Your task to perform on an android device: change the clock style Image 0: 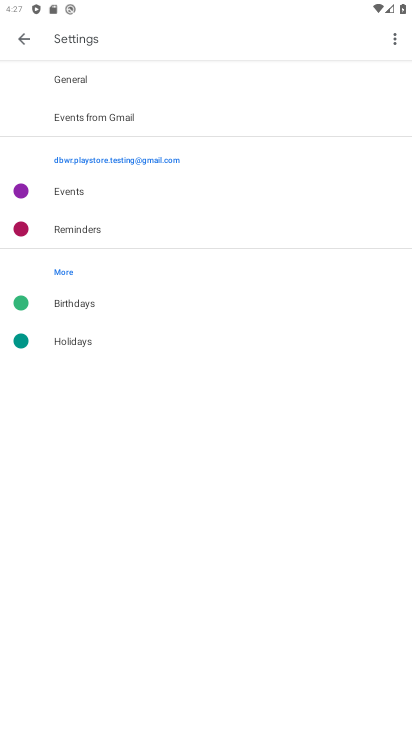
Step 0: press back button
Your task to perform on an android device: change the clock style Image 1: 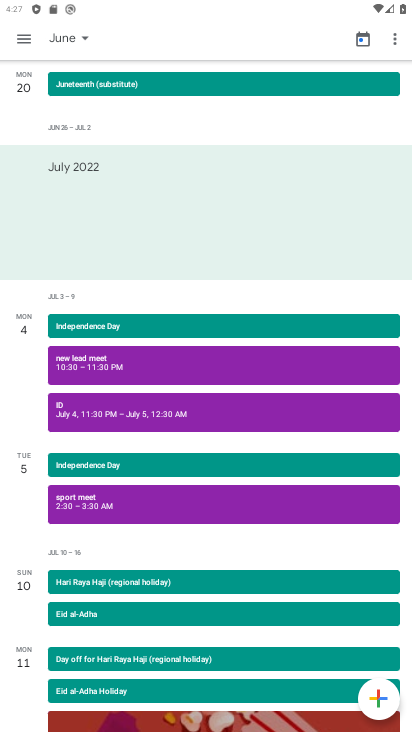
Step 1: press back button
Your task to perform on an android device: change the clock style Image 2: 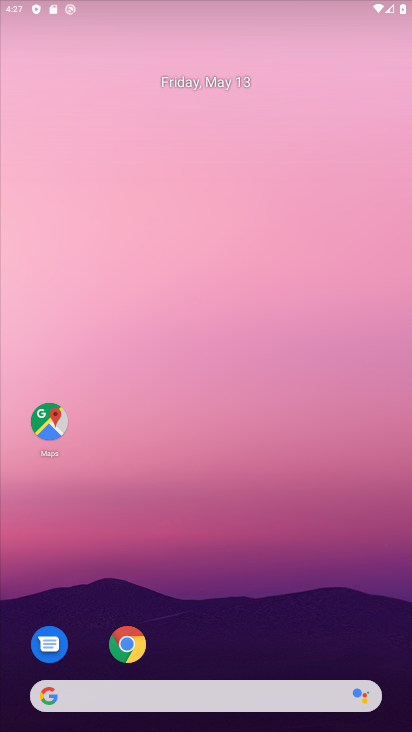
Step 2: drag from (241, 559) to (320, 59)
Your task to perform on an android device: change the clock style Image 3: 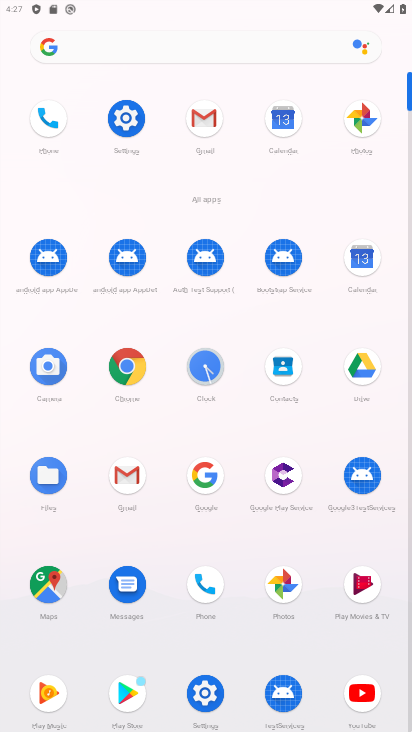
Step 3: click (209, 360)
Your task to perform on an android device: change the clock style Image 4: 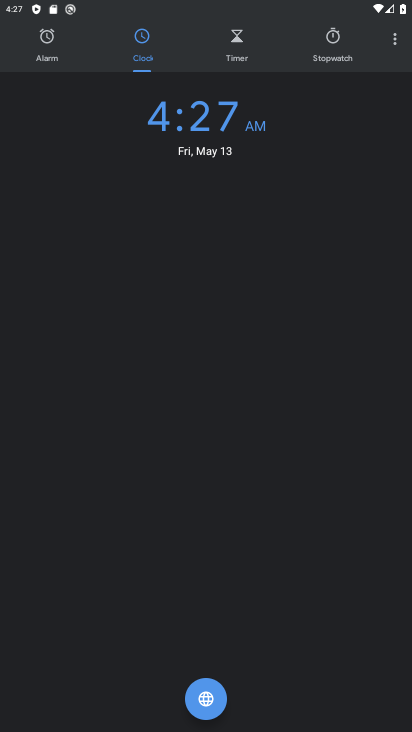
Step 4: click (392, 44)
Your task to perform on an android device: change the clock style Image 5: 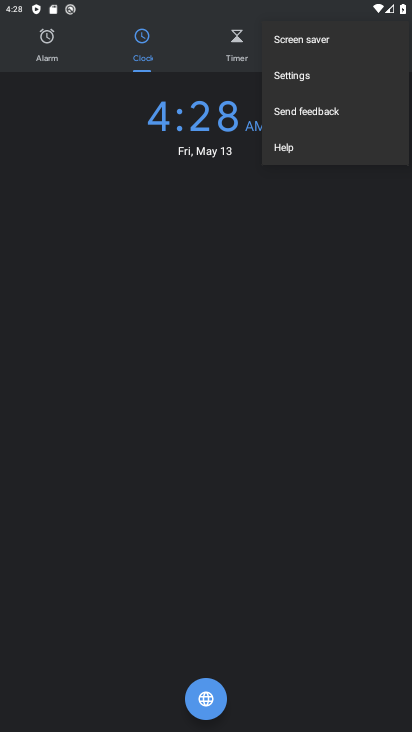
Step 5: click (291, 78)
Your task to perform on an android device: change the clock style Image 6: 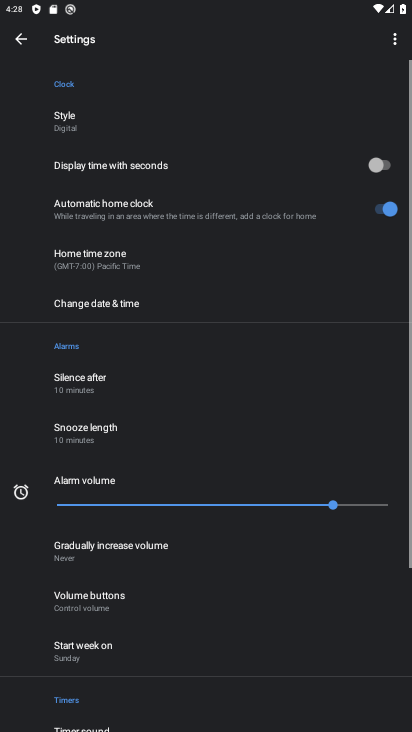
Step 6: click (110, 123)
Your task to perform on an android device: change the clock style Image 7: 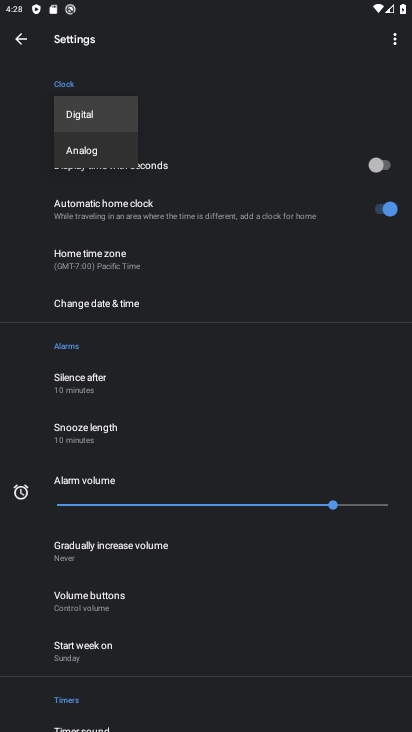
Step 7: click (99, 149)
Your task to perform on an android device: change the clock style Image 8: 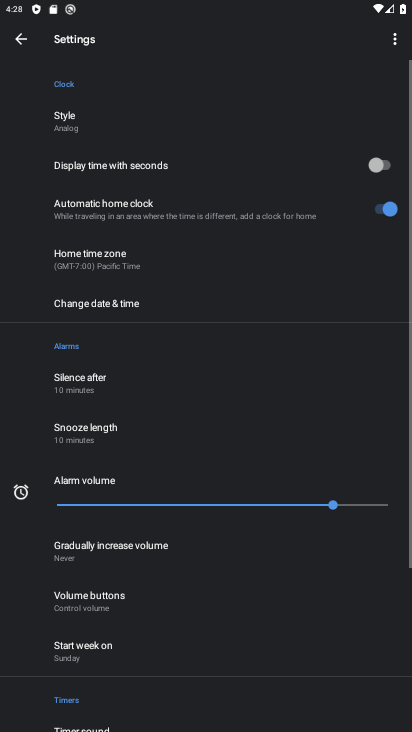
Step 8: task complete